Your task to perform on an android device: Open Google Chrome Image 0: 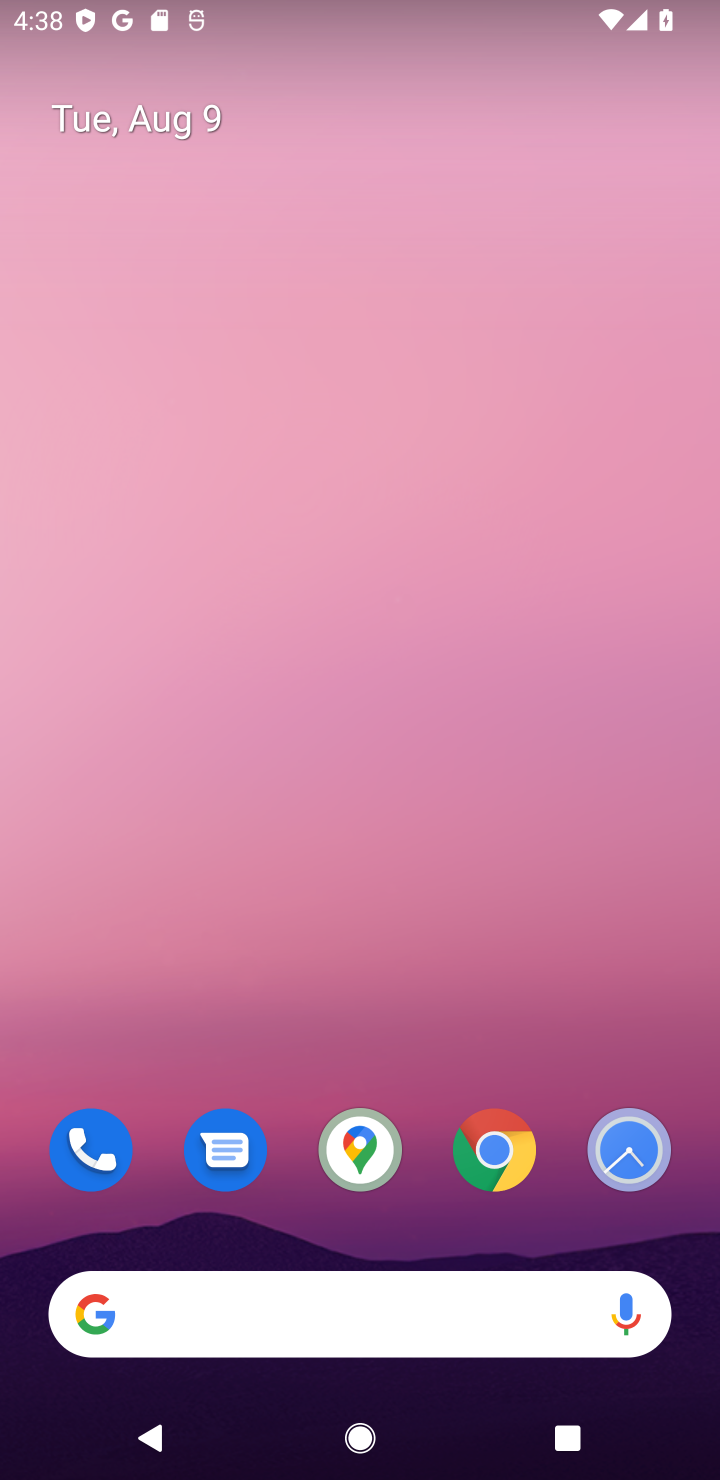
Step 0: click (478, 1147)
Your task to perform on an android device: Open Google Chrome Image 1: 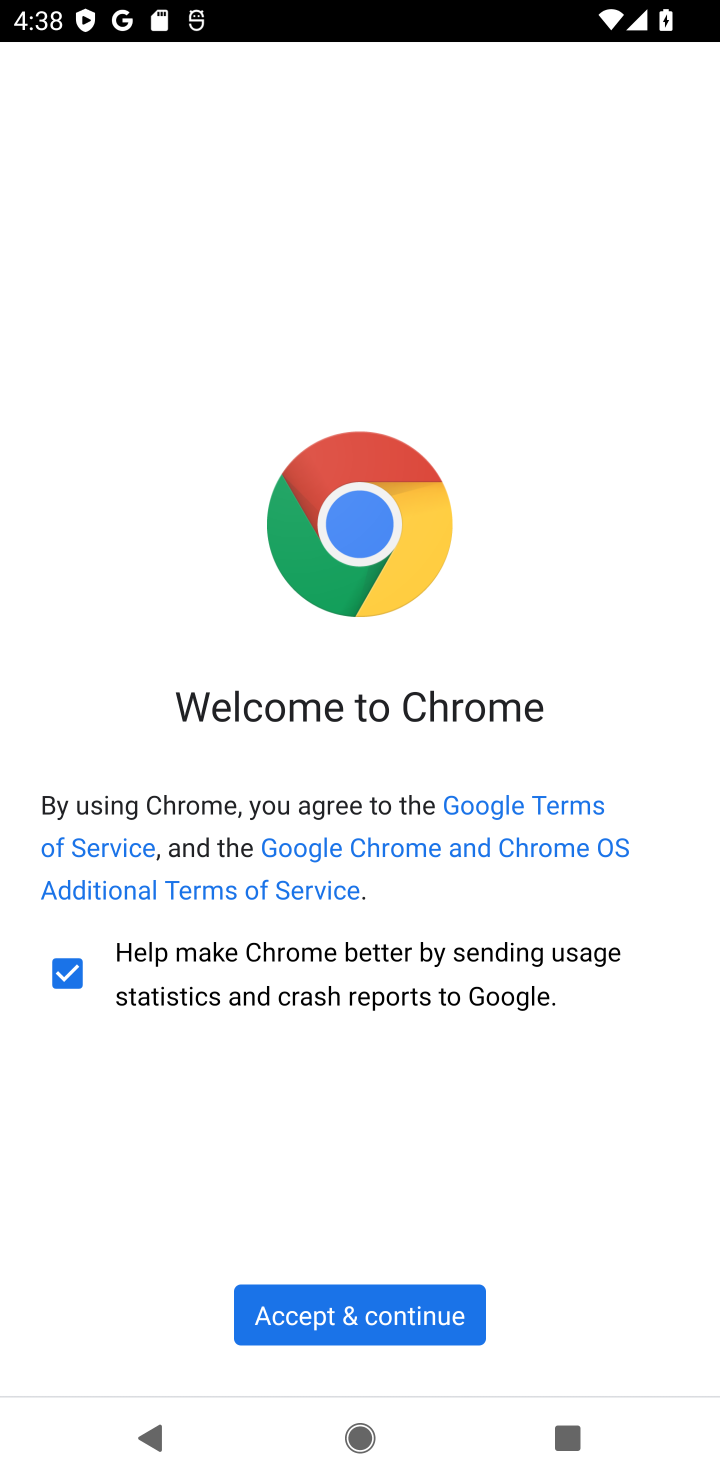
Step 1: click (395, 1307)
Your task to perform on an android device: Open Google Chrome Image 2: 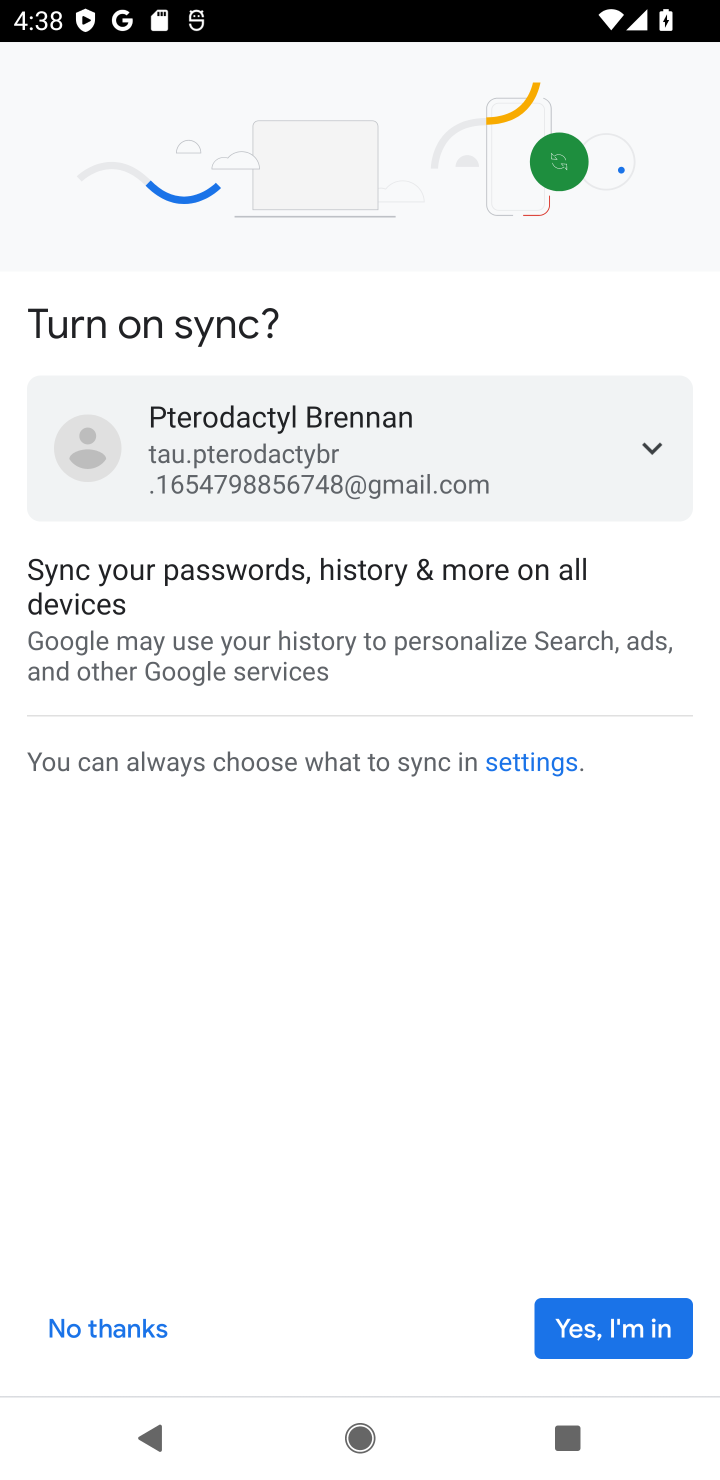
Step 2: click (593, 1304)
Your task to perform on an android device: Open Google Chrome Image 3: 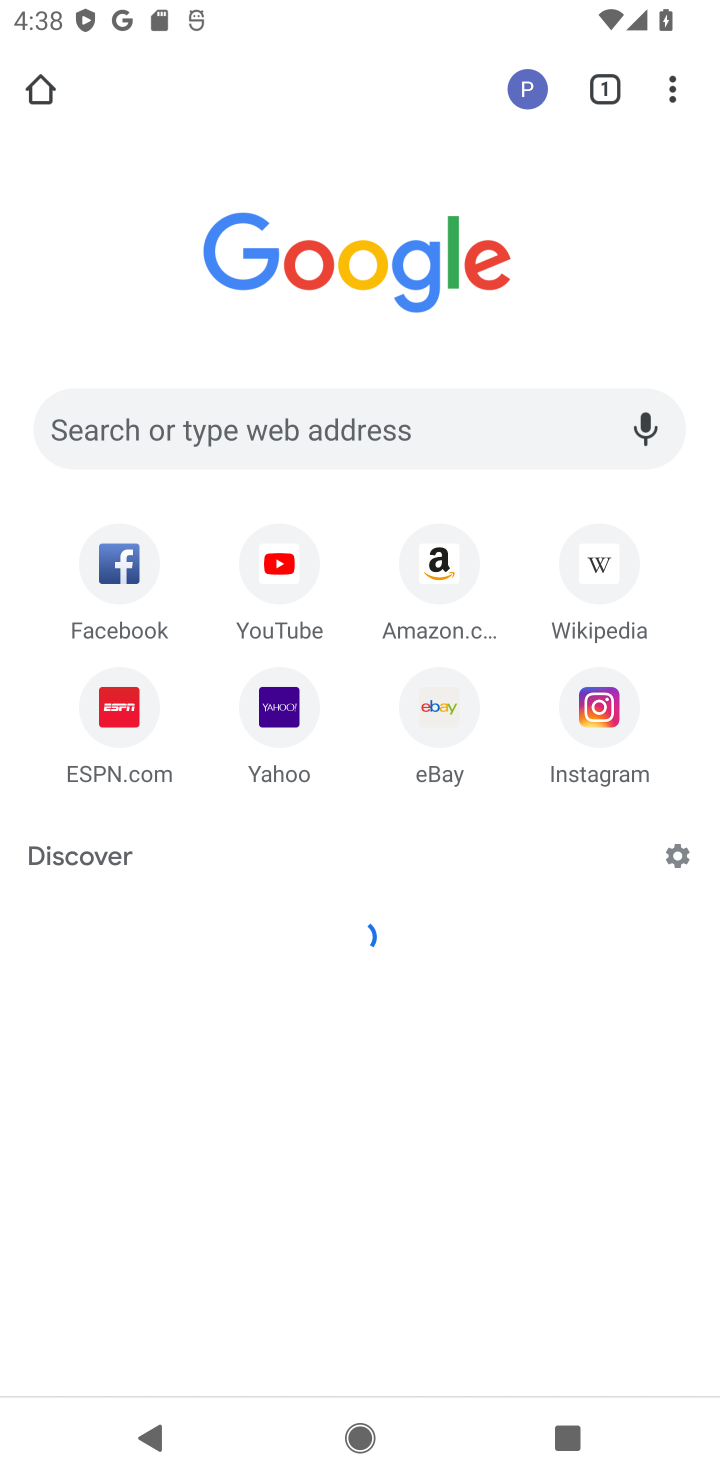
Step 3: task complete